Your task to perform on an android device: What's on my calendar today? Image 0: 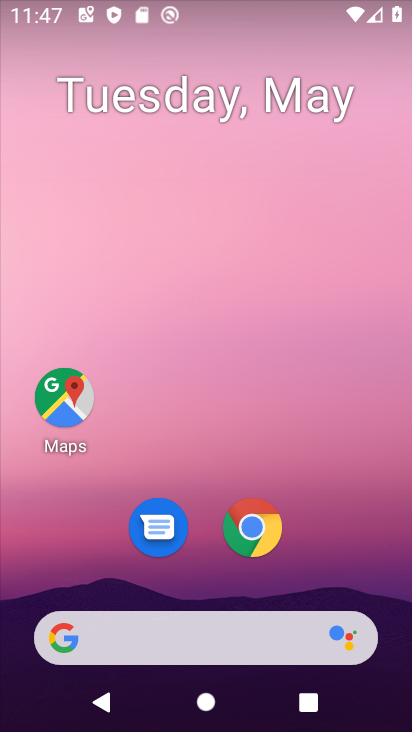
Step 0: drag from (168, 517) to (255, 117)
Your task to perform on an android device: What's on my calendar today? Image 1: 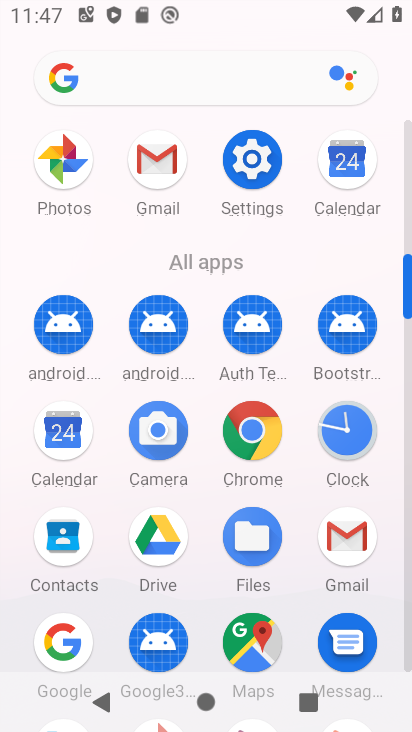
Step 1: click (29, 423)
Your task to perform on an android device: What's on my calendar today? Image 2: 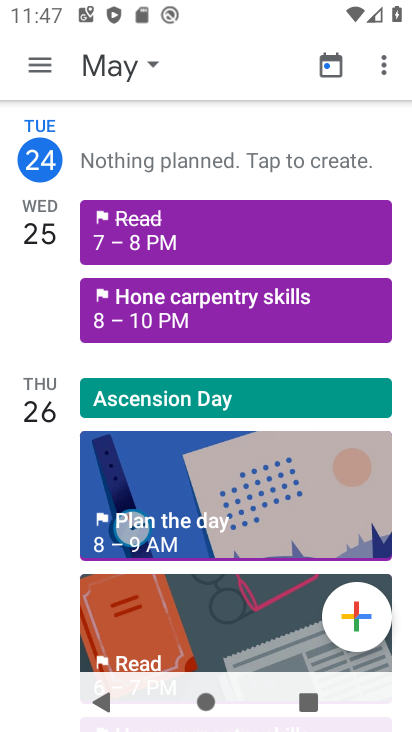
Step 2: click (157, 59)
Your task to perform on an android device: What's on my calendar today? Image 3: 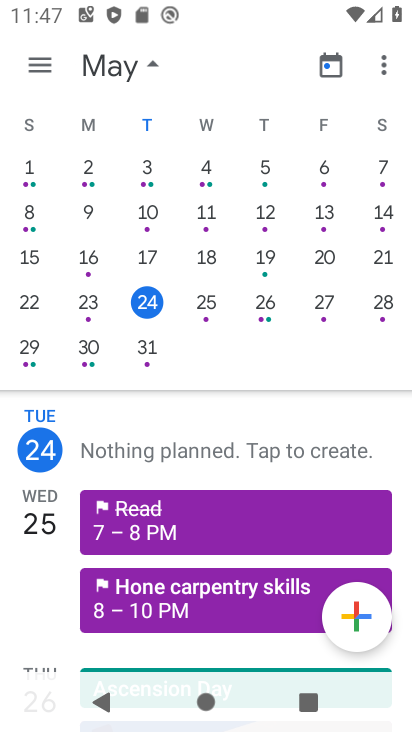
Step 3: click (207, 306)
Your task to perform on an android device: What's on my calendar today? Image 4: 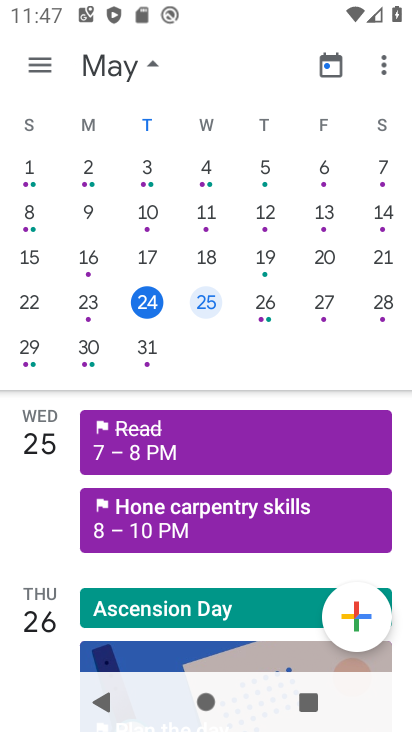
Step 4: task complete